Your task to perform on an android device: open app "Paramount+ | Peak Streaming" Image 0: 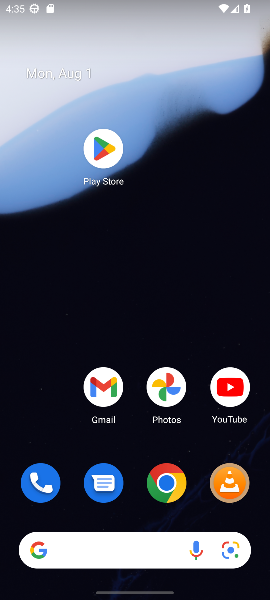
Step 0: press home button
Your task to perform on an android device: open app "Paramount+ | Peak Streaming" Image 1: 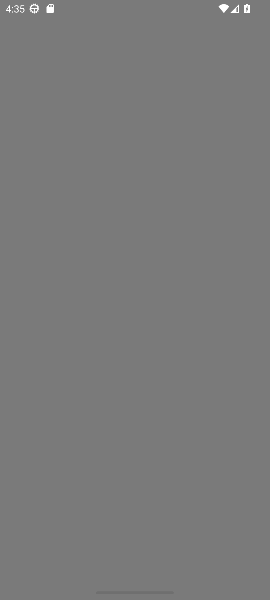
Step 1: click (104, 145)
Your task to perform on an android device: open app "Paramount+ | Peak Streaming" Image 2: 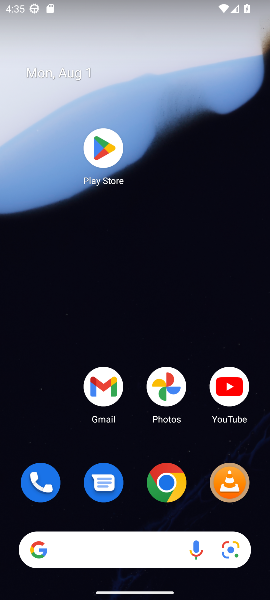
Step 2: click (103, 150)
Your task to perform on an android device: open app "Paramount+ | Peak Streaming" Image 3: 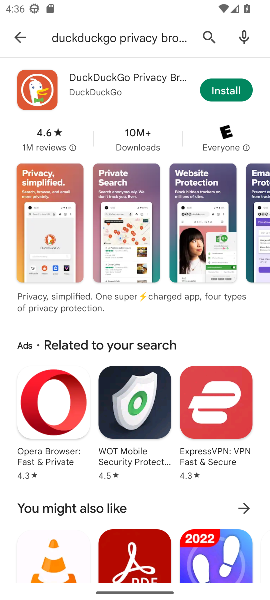
Step 3: click (203, 32)
Your task to perform on an android device: open app "Paramount+ | Peak Streaming" Image 4: 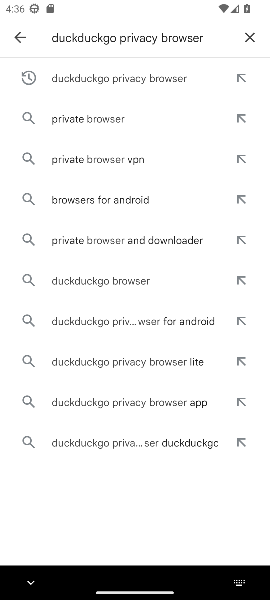
Step 4: click (245, 37)
Your task to perform on an android device: open app "Paramount+ | Peak Streaming" Image 5: 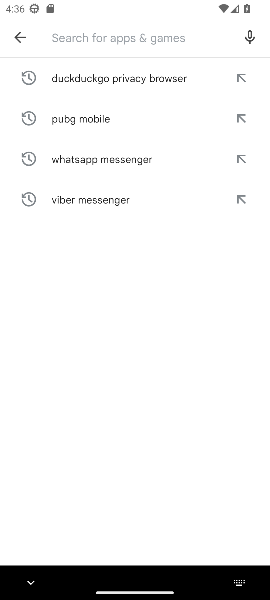
Step 5: click (184, 598)
Your task to perform on an android device: open app "Paramount+ | Peak Streaming" Image 6: 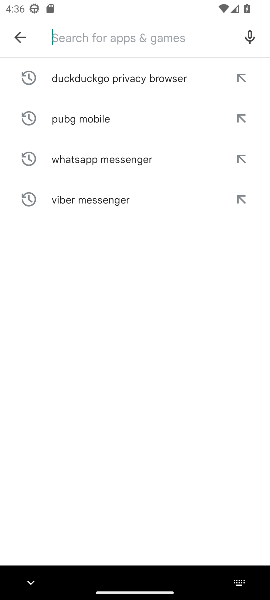
Step 6: type "Paramount+ | Peak Streaming"
Your task to perform on an android device: open app "Paramount+ | Peak Streaming" Image 7: 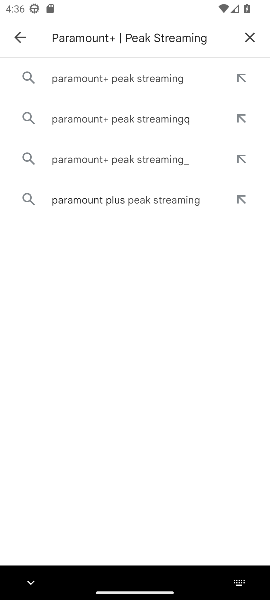
Step 7: click (150, 80)
Your task to perform on an android device: open app "Paramount+ | Peak Streaming" Image 8: 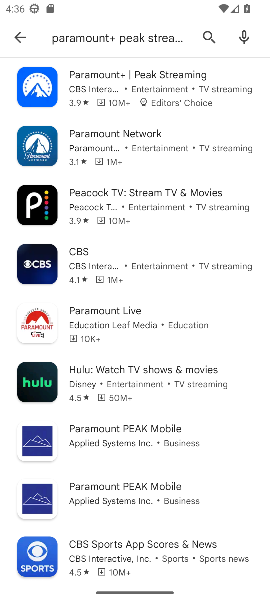
Step 8: click (137, 93)
Your task to perform on an android device: open app "Paramount+ | Peak Streaming" Image 9: 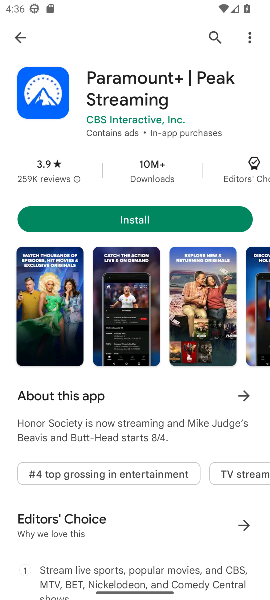
Step 9: task complete